Your task to perform on an android device: open app "Google Pay: Save, Pay, Manage" (install if not already installed) Image 0: 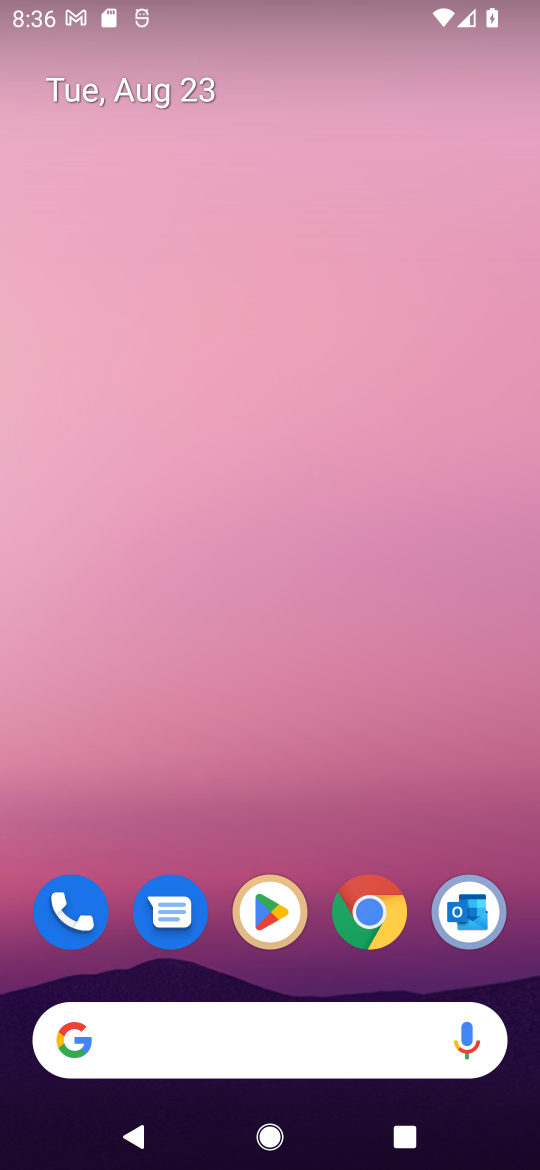
Step 0: drag from (305, 1032) to (383, 195)
Your task to perform on an android device: open app "Google Pay: Save, Pay, Manage" (install if not already installed) Image 1: 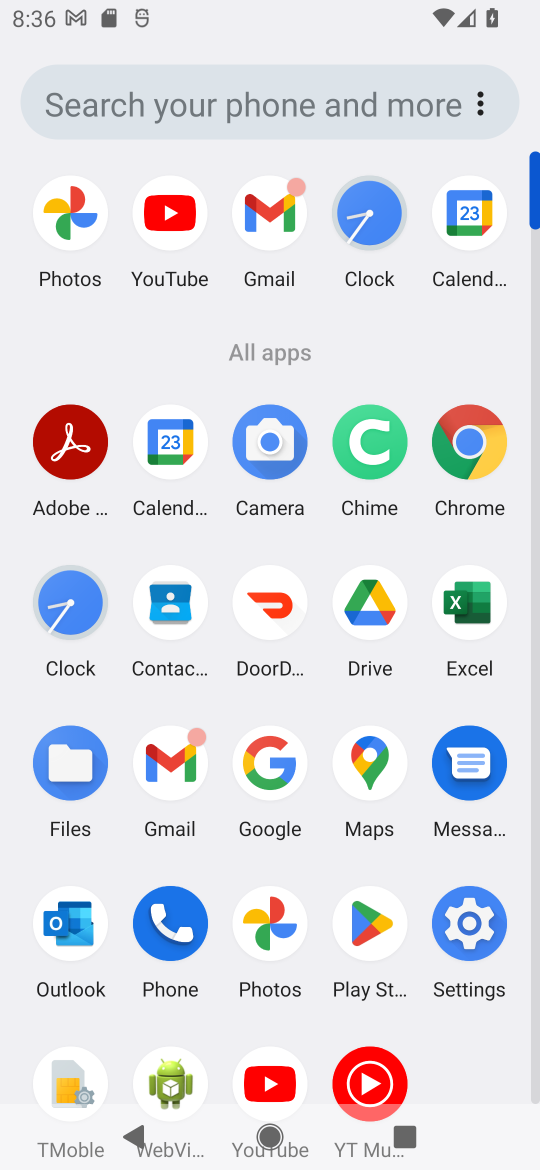
Step 1: click (370, 923)
Your task to perform on an android device: open app "Google Pay: Save, Pay, Manage" (install if not already installed) Image 2: 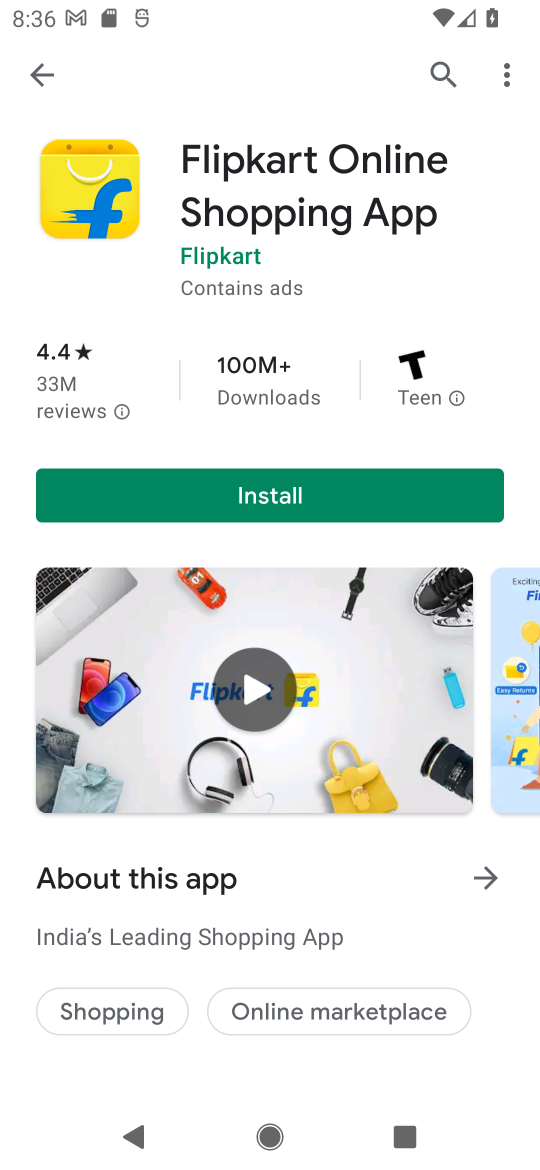
Step 2: press back button
Your task to perform on an android device: open app "Google Pay: Save, Pay, Manage" (install if not already installed) Image 3: 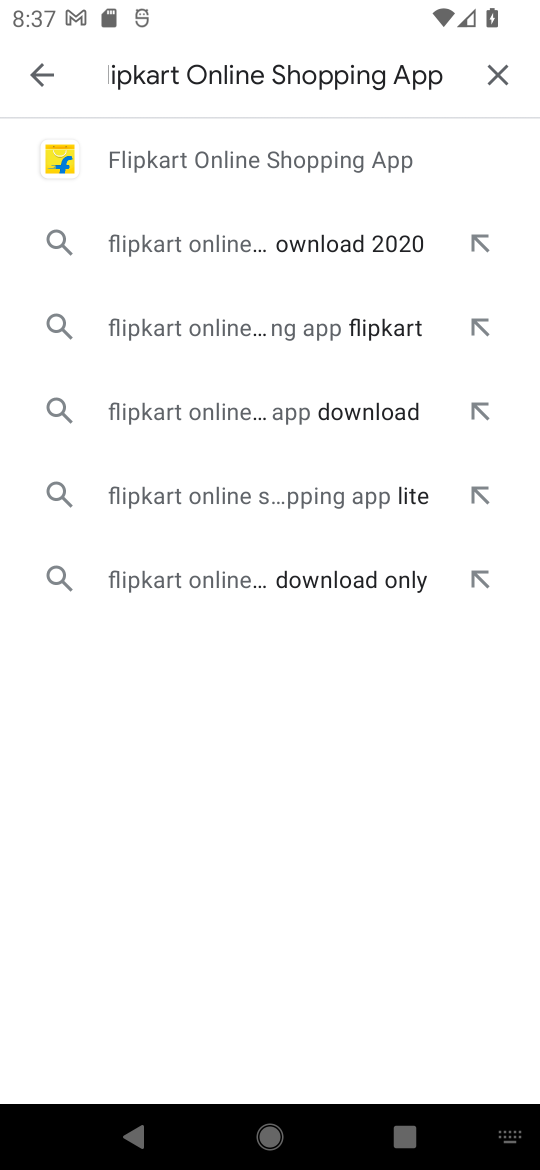
Step 3: press back button
Your task to perform on an android device: open app "Google Pay: Save, Pay, Manage" (install if not already installed) Image 4: 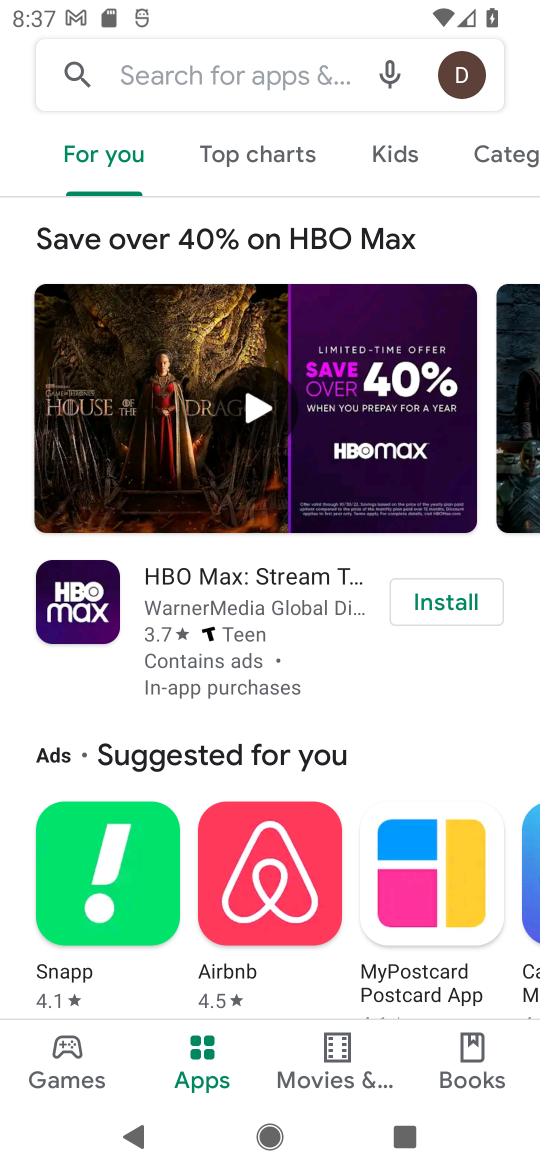
Step 4: click (266, 83)
Your task to perform on an android device: open app "Google Pay: Save, Pay, Manage" (install if not already installed) Image 5: 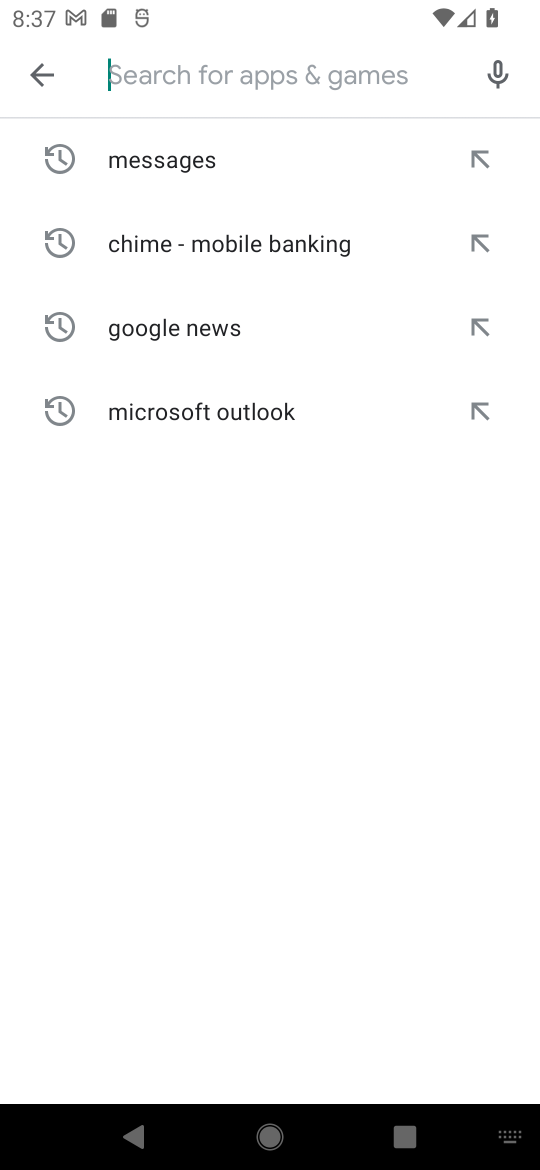
Step 5: click (325, 76)
Your task to perform on an android device: open app "Google Pay: Save, Pay, Manage" (install if not already installed) Image 6: 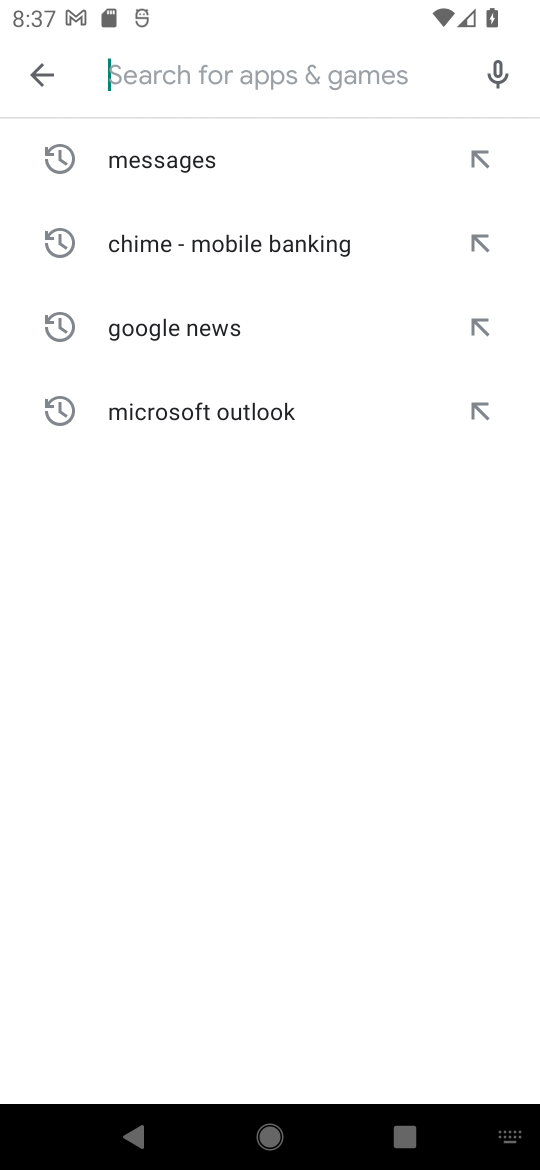
Step 6: type "Google Pay: Save, Pay, Manage"
Your task to perform on an android device: open app "Google Pay: Save, Pay, Manage" (install if not already installed) Image 7: 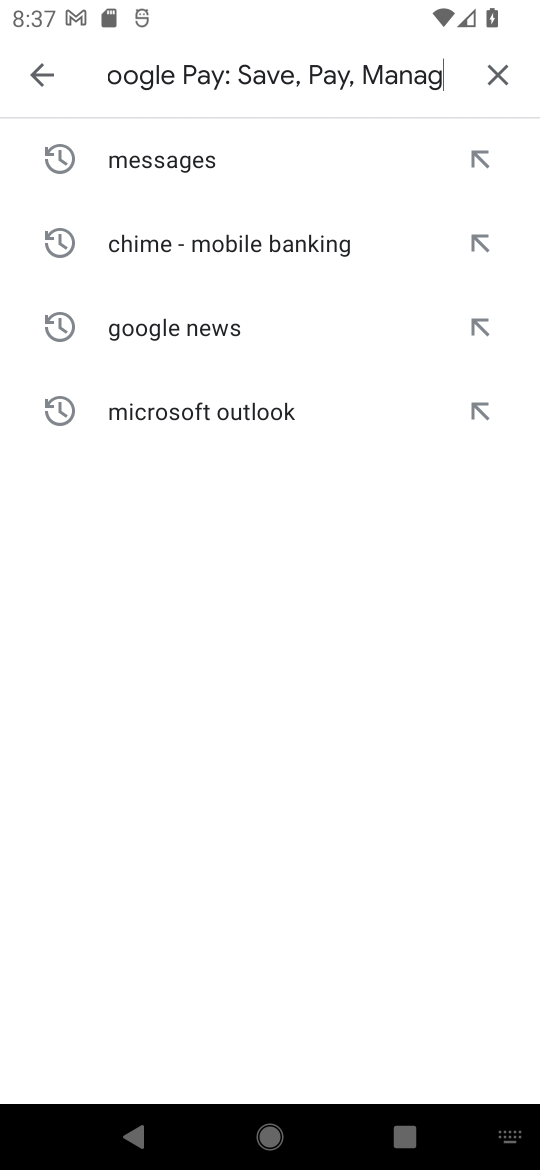
Step 7: type ""
Your task to perform on an android device: open app "Google Pay: Save, Pay, Manage" (install if not already installed) Image 8: 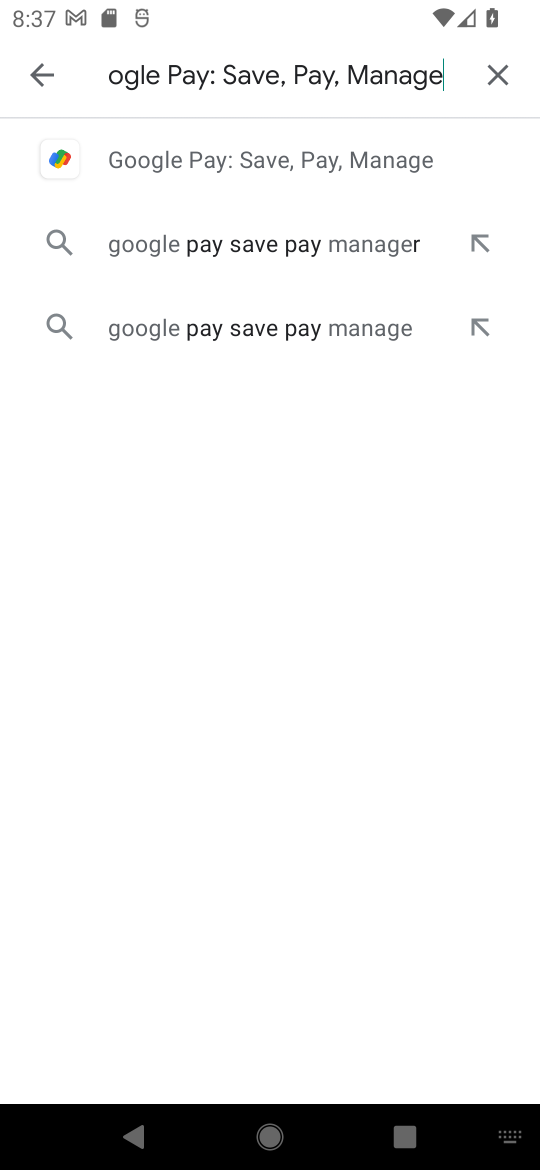
Step 8: click (213, 159)
Your task to perform on an android device: open app "Google Pay: Save, Pay, Manage" (install if not already installed) Image 9: 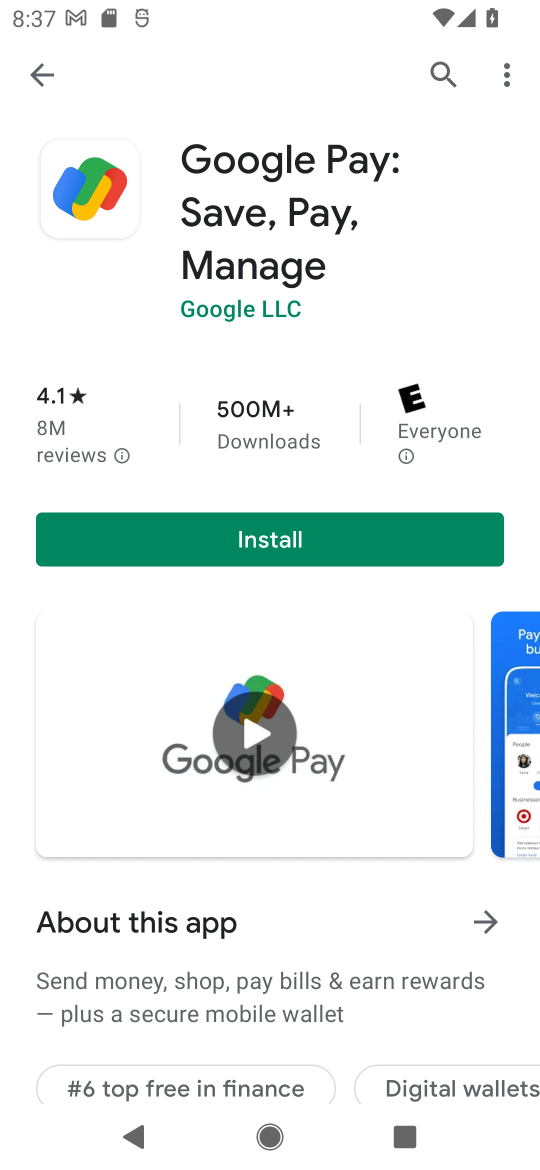
Step 9: click (248, 539)
Your task to perform on an android device: open app "Google Pay: Save, Pay, Manage" (install if not already installed) Image 10: 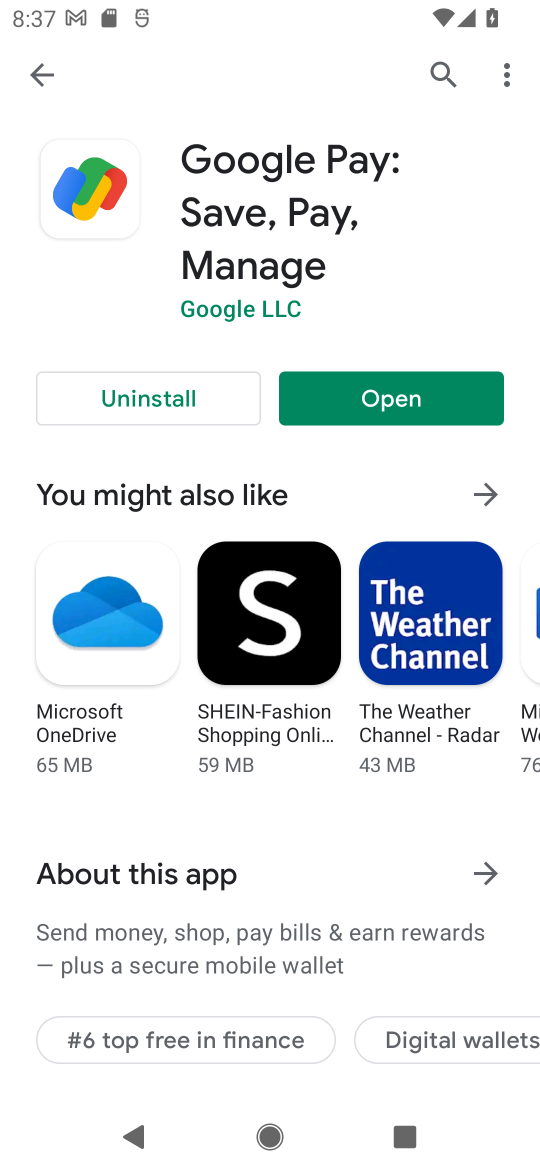
Step 10: click (397, 418)
Your task to perform on an android device: open app "Google Pay: Save, Pay, Manage" (install if not already installed) Image 11: 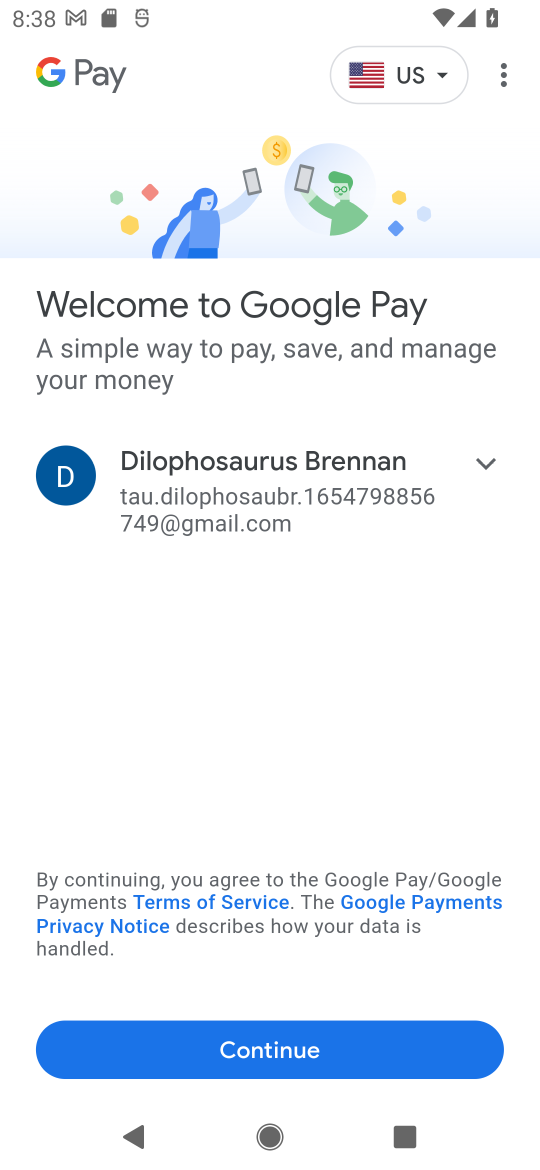
Step 11: task complete